Your task to perform on an android device: turn on wifi Image 0: 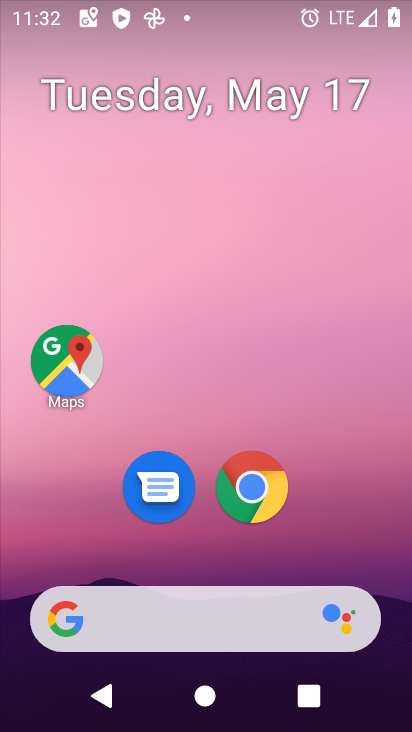
Step 0: drag from (283, 7) to (120, 680)
Your task to perform on an android device: turn on wifi Image 1: 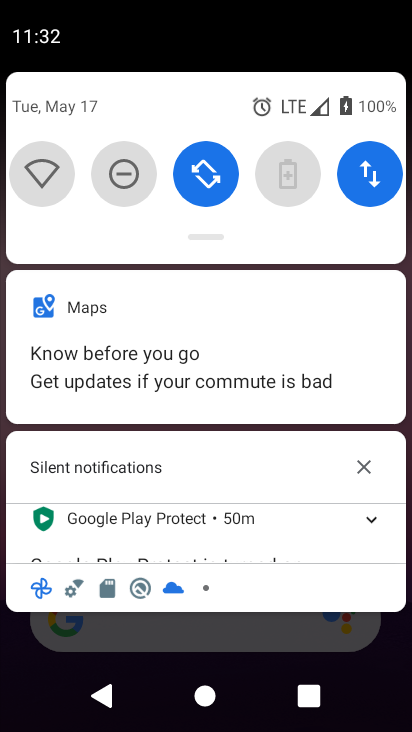
Step 1: click (56, 212)
Your task to perform on an android device: turn on wifi Image 2: 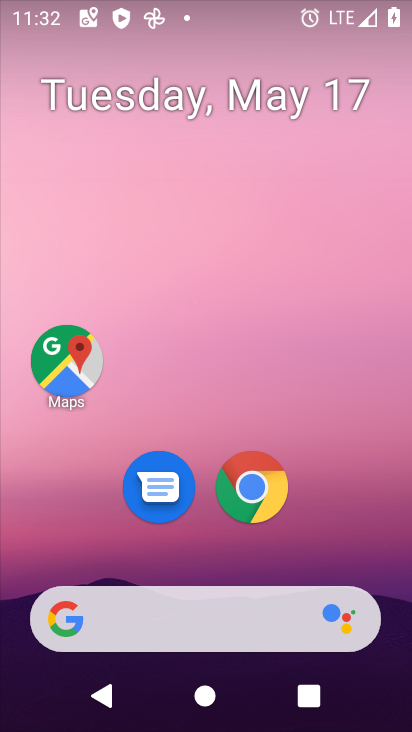
Step 2: drag from (328, 19) to (225, 722)
Your task to perform on an android device: turn on wifi Image 3: 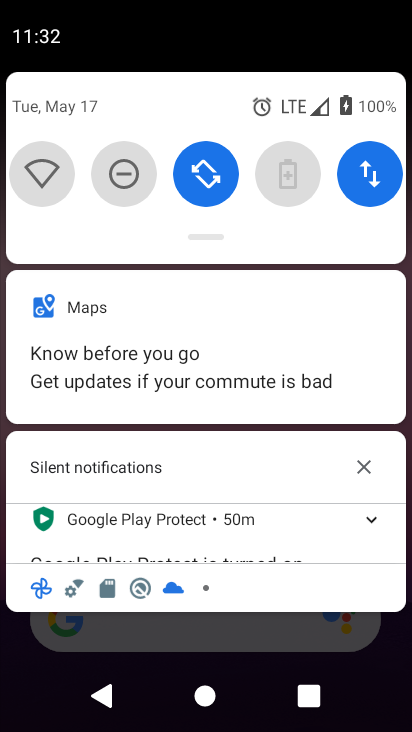
Step 3: click (55, 163)
Your task to perform on an android device: turn on wifi Image 4: 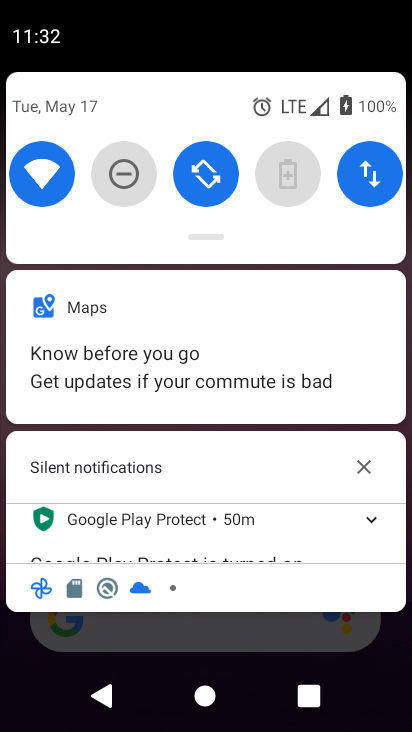
Step 4: task complete